Your task to perform on an android device: turn on translation in the chrome app Image 0: 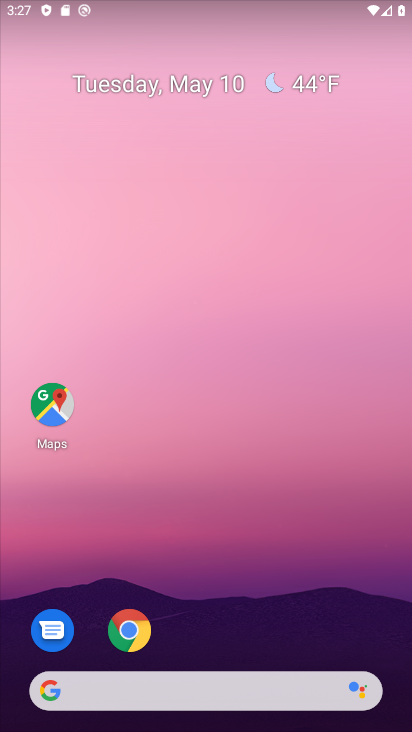
Step 0: click (131, 622)
Your task to perform on an android device: turn on translation in the chrome app Image 1: 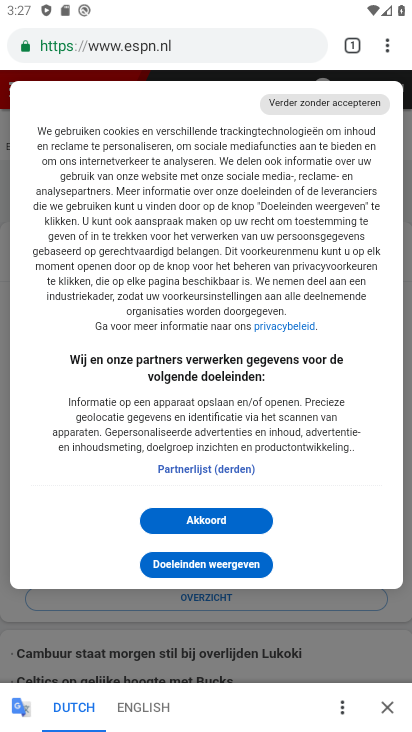
Step 1: click (389, 50)
Your task to perform on an android device: turn on translation in the chrome app Image 2: 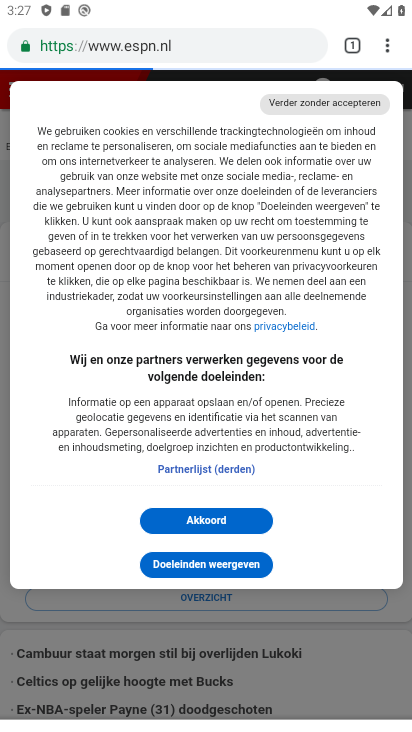
Step 2: drag from (383, 57) to (233, 562)
Your task to perform on an android device: turn on translation in the chrome app Image 3: 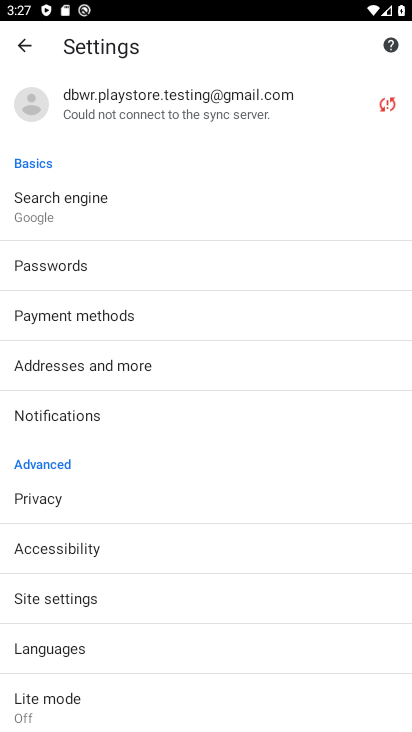
Step 3: click (60, 637)
Your task to perform on an android device: turn on translation in the chrome app Image 4: 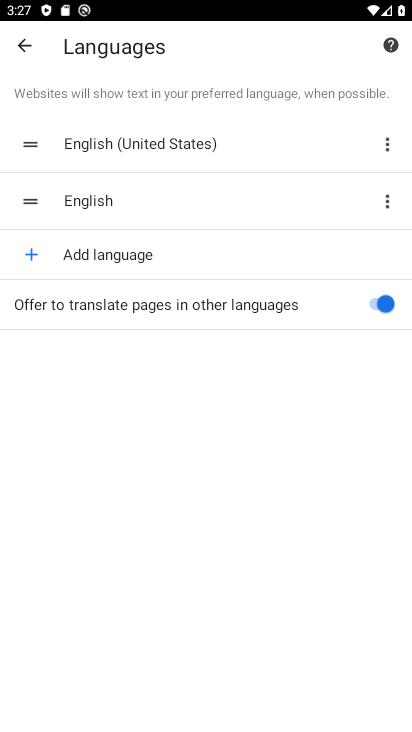
Step 4: task complete